Your task to perform on an android device: Search for "razer blade" on costco, select the first entry, add it to the cart, then select checkout. Image 0: 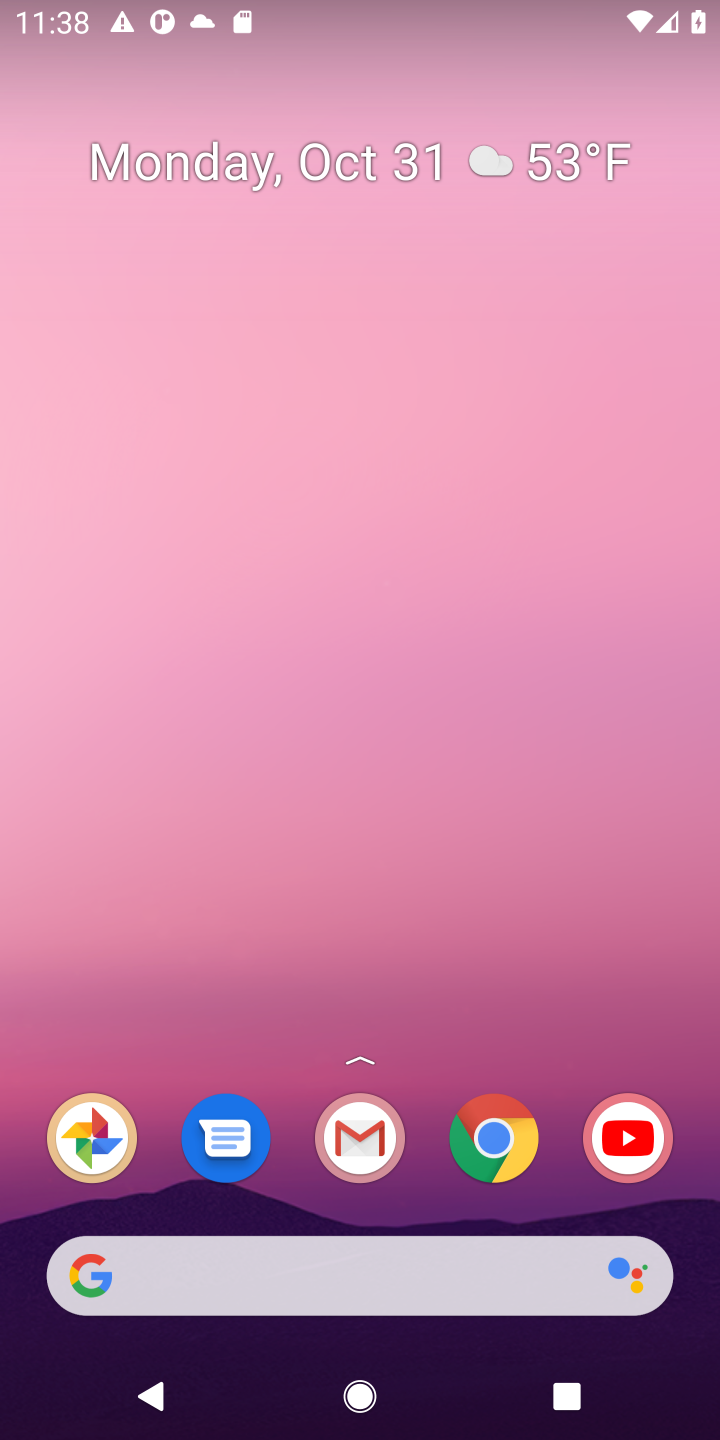
Step 0: press home button
Your task to perform on an android device: Search for "razer blade" on costco, select the first entry, add it to the cart, then select checkout. Image 1: 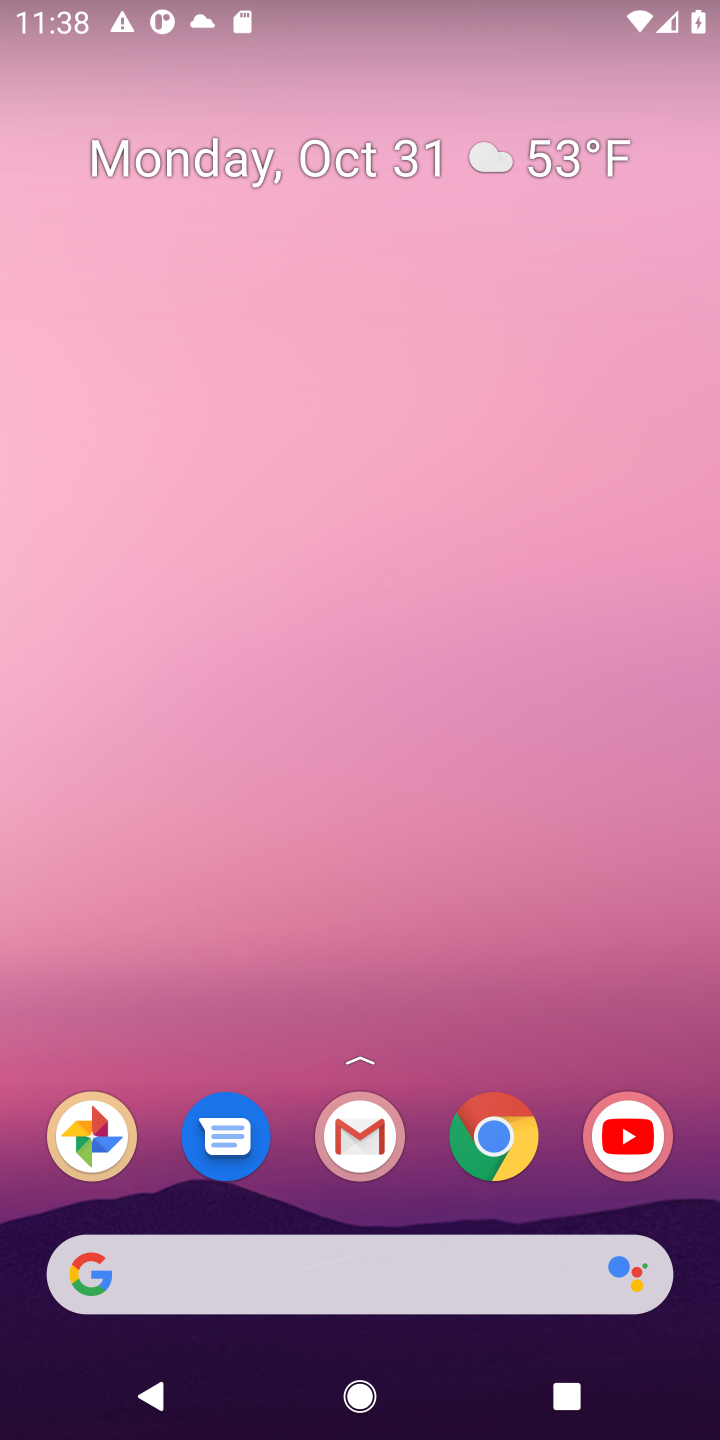
Step 1: click (137, 1271)
Your task to perform on an android device: Search for "razer blade" on costco, select the first entry, add it to the cart, then select checkout. Image 2: 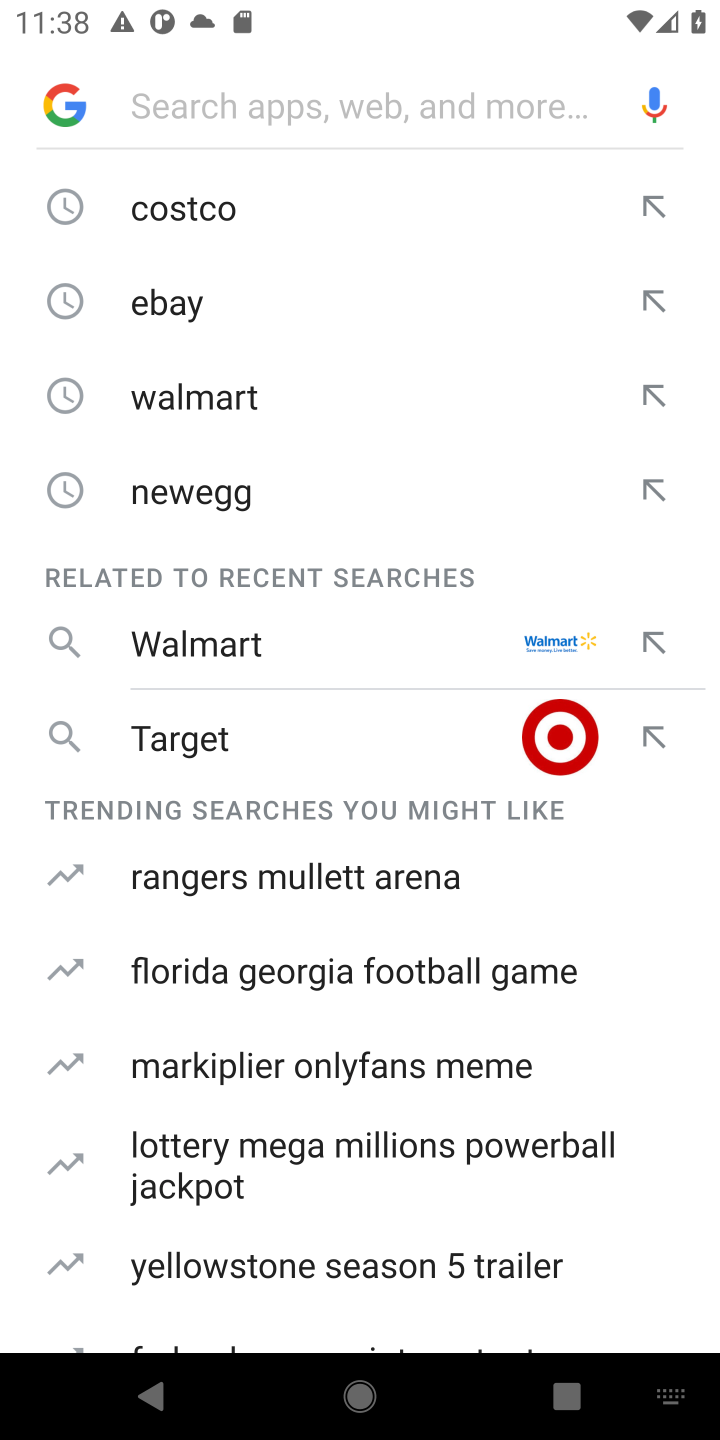
Step 2: type "costco,"
Your task to perform on an android device: Search for "razer blade" on costco, select the first entry, add it to the cart, then select checkout. Image 3: 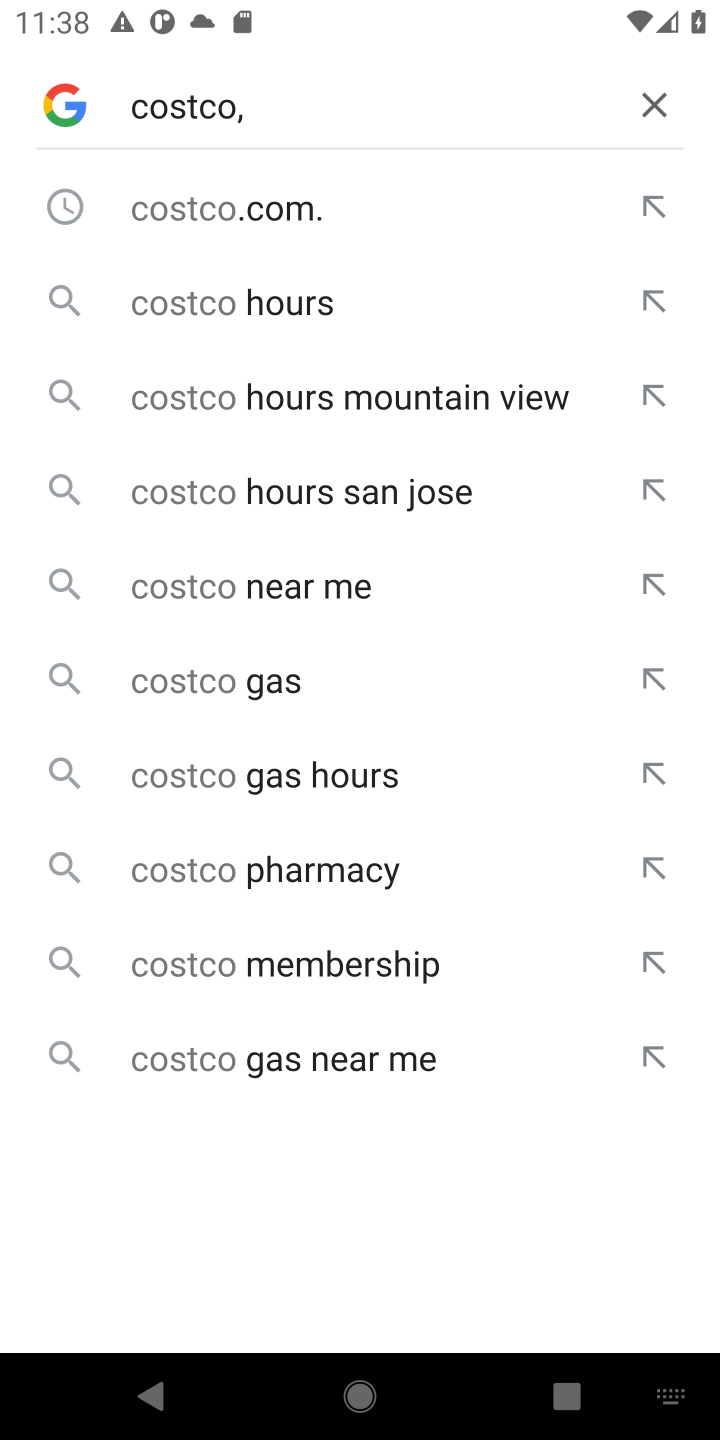
Step 3: press enter
Your task to perform on an android device: Search for "razer blade" on costco, select the first entry, add it to the cart, then select checkout. Image 4: 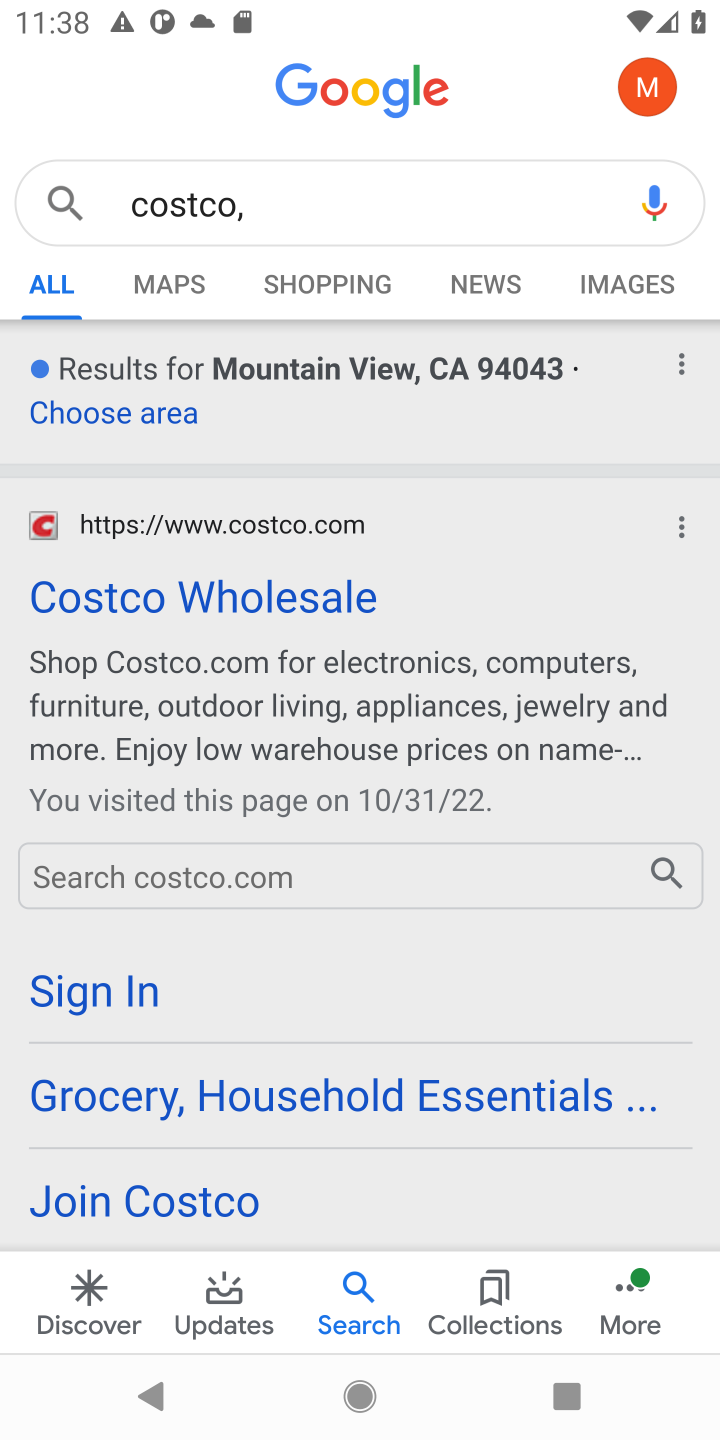
Step 4: click (248, 600)
Your task to perform on an android device: Search for "razer blade" on costco, select the first entry, add it to the cart, then select checkout. Image 5: 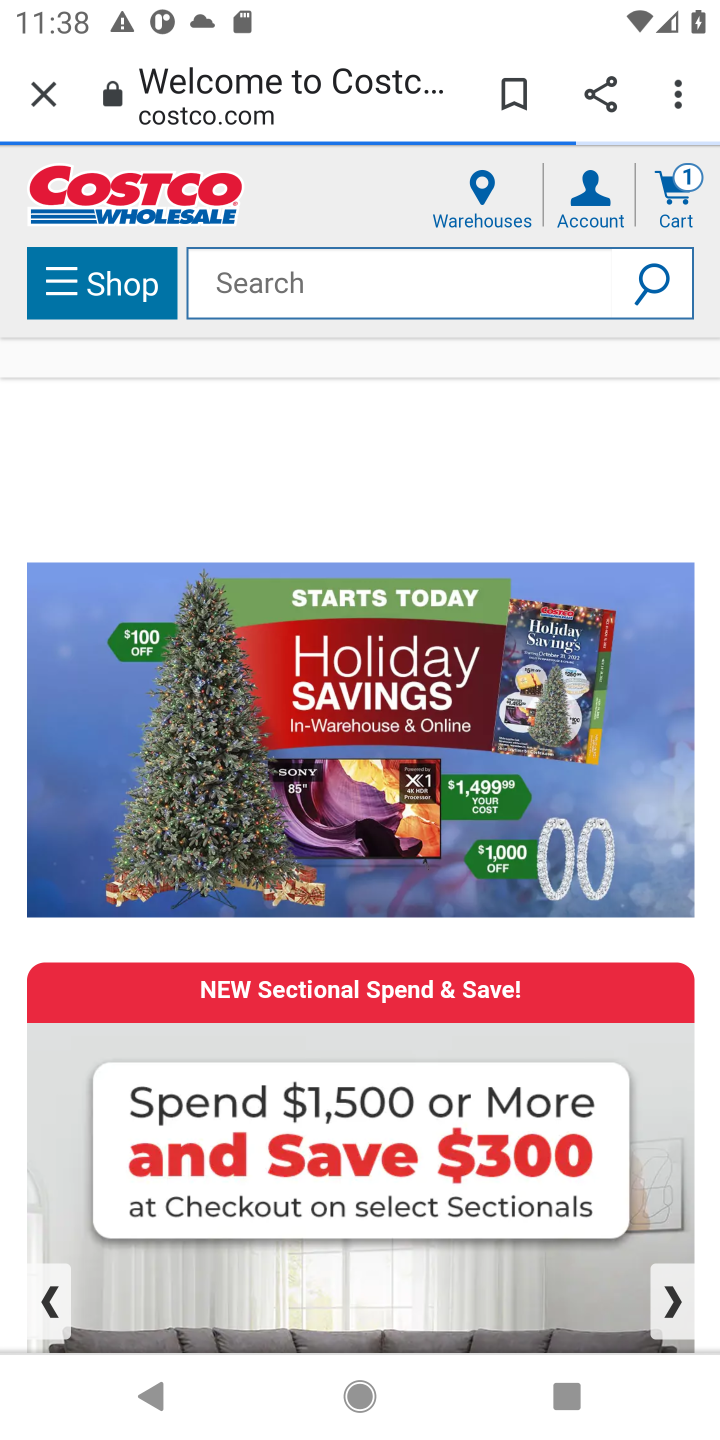
Step 5: click (287, 264)
Your task to perform on an android device: Search for "razer blade" on costco, select the first entry, add it to the cart, then select checkout. Image 6: 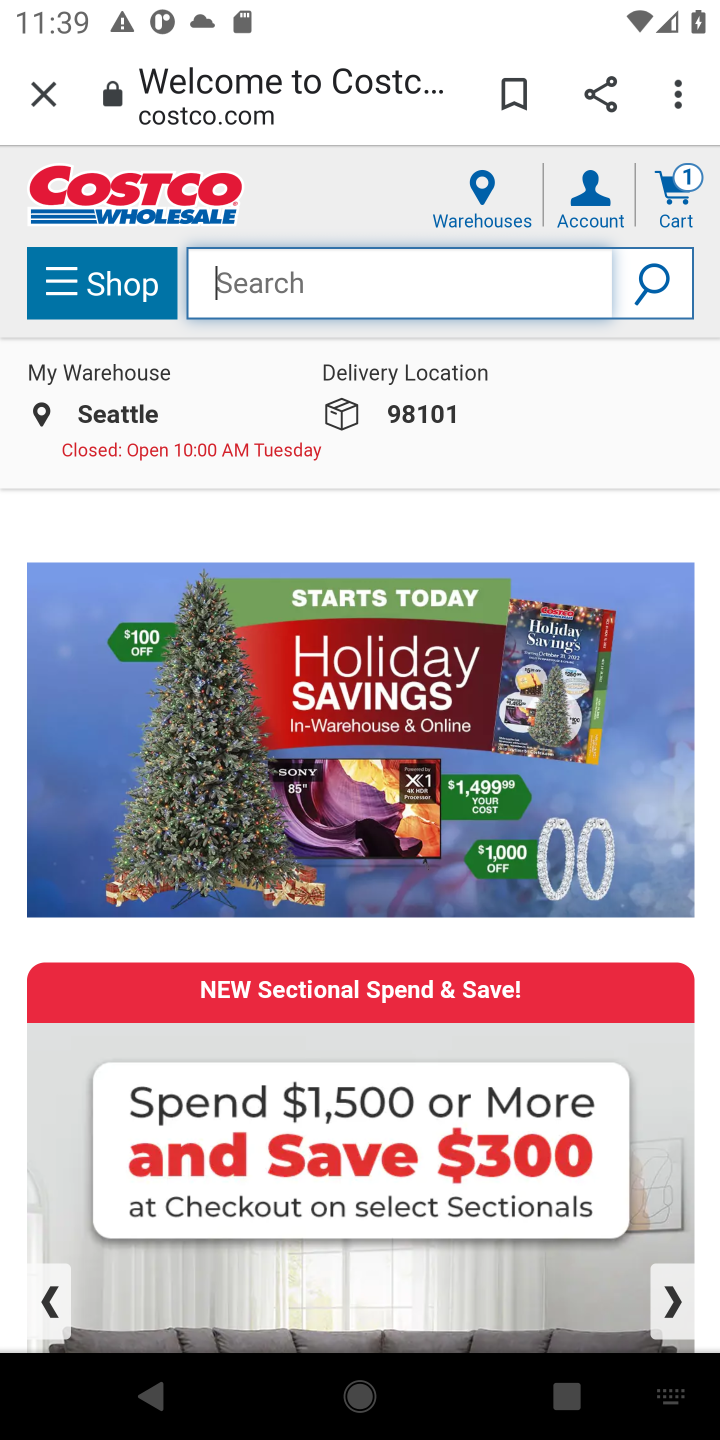
Step 6: press enter
Your task to perform on an android device: Search for "razer blade" on costco, select the first entry, add it to the cart, then select checkout. Image 7: 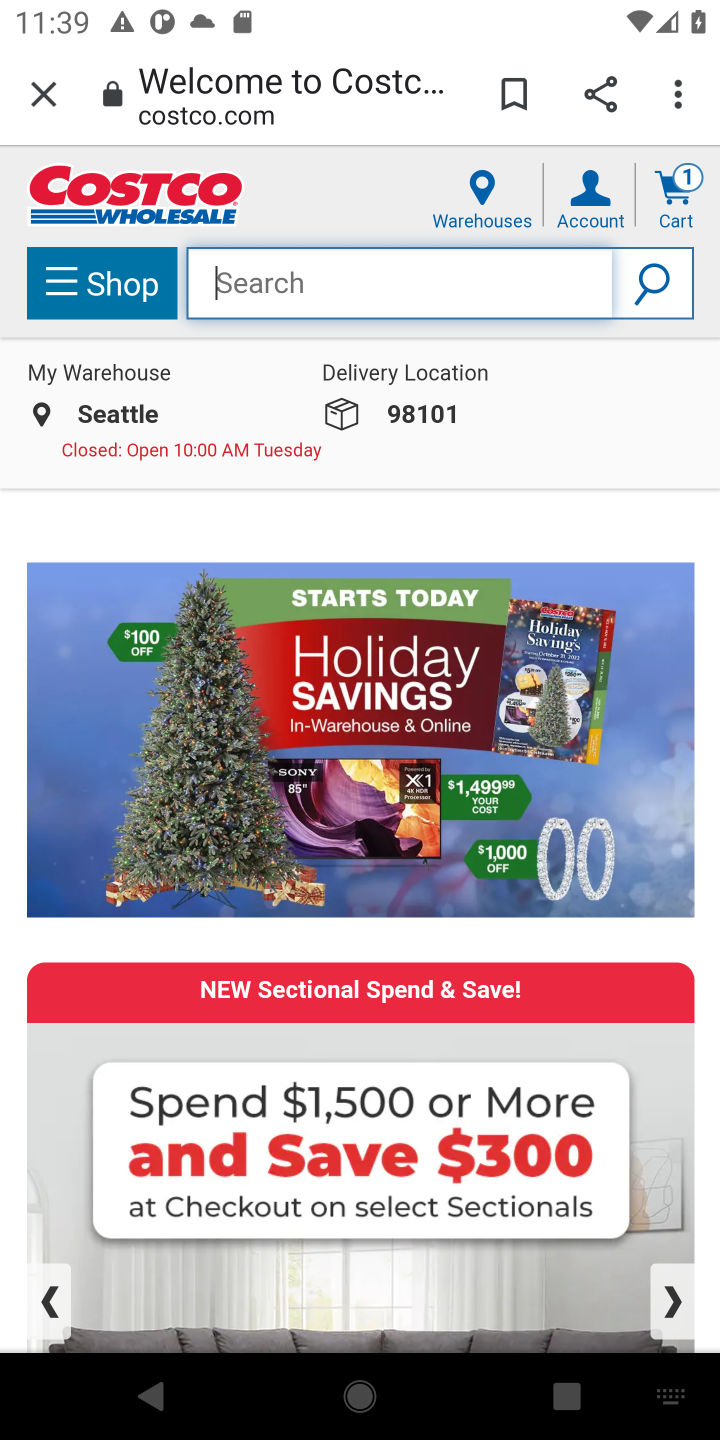
Step 7: type "razer blade"
Your task to perform on an android device: Search for "razer blade" on costco, select the first entry, add it to the cart, then select checkout. Image 8: 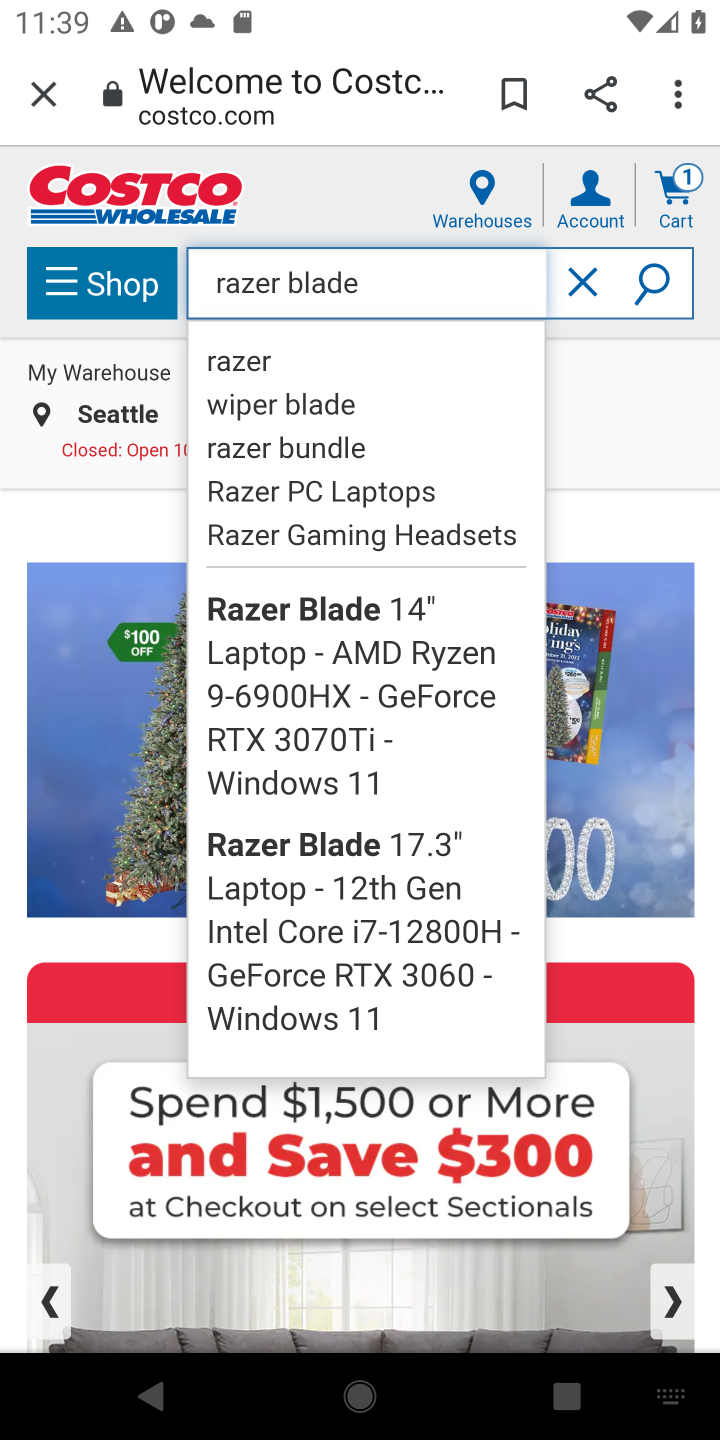
Step 8: click (660, 268)
Your task to perform on an android device: Search for "razer blade" on costco, select the first entry, add it to the cart, then select checkout. Image 9: 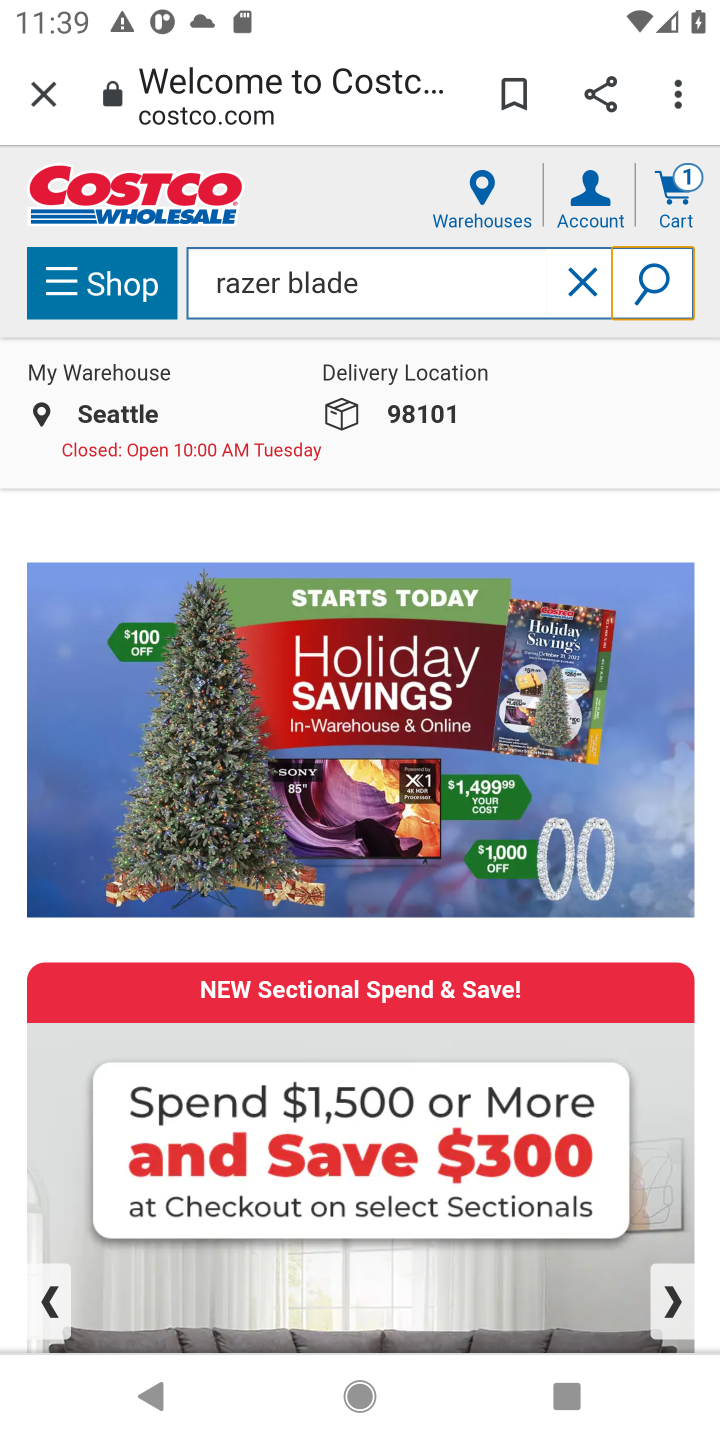
Step 9: click (654, 265)
Your task to perform on an android device: Search for "razer blade" on costco, select the first entry, add it to the cart, then select checkout. Image 10: 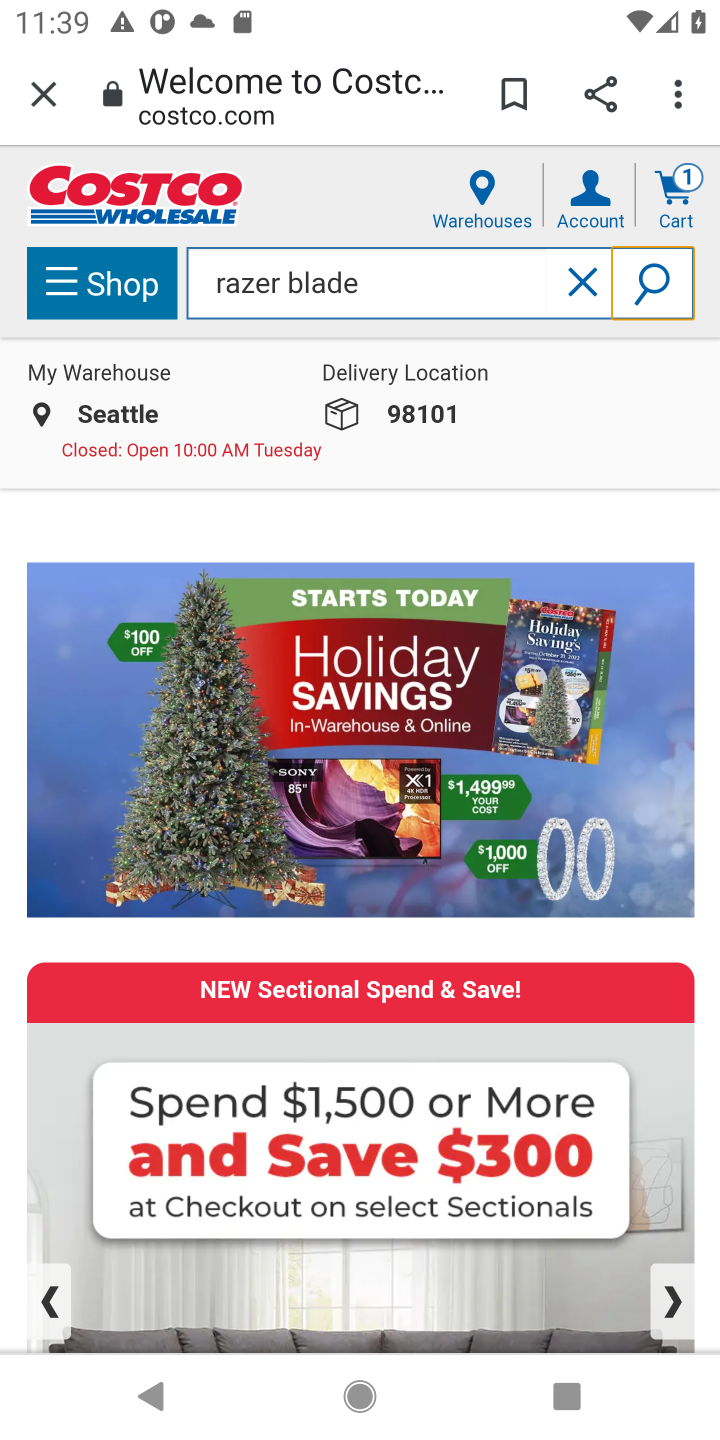
Step 10: click (651, 275)
Your task to perform on an android device: Search for "razer blade" on costco, select the first entry, add it to the cart, then select checkout. Image 11: 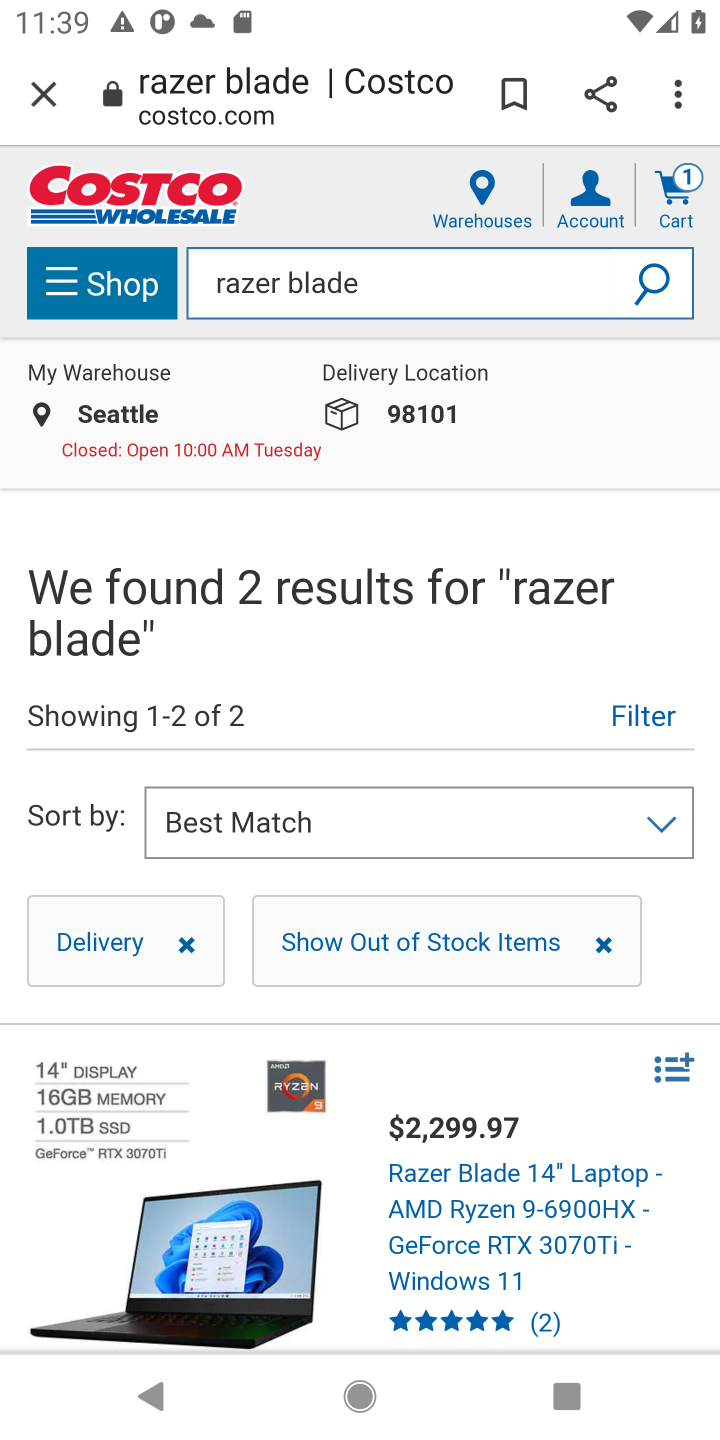
Step 11: drag from (447, 1103) to (447, 750)
Your task to perform on an android device: Search for "razer blade" on costco, select the first entry, add it to the cart, then select checkout. Image 12: 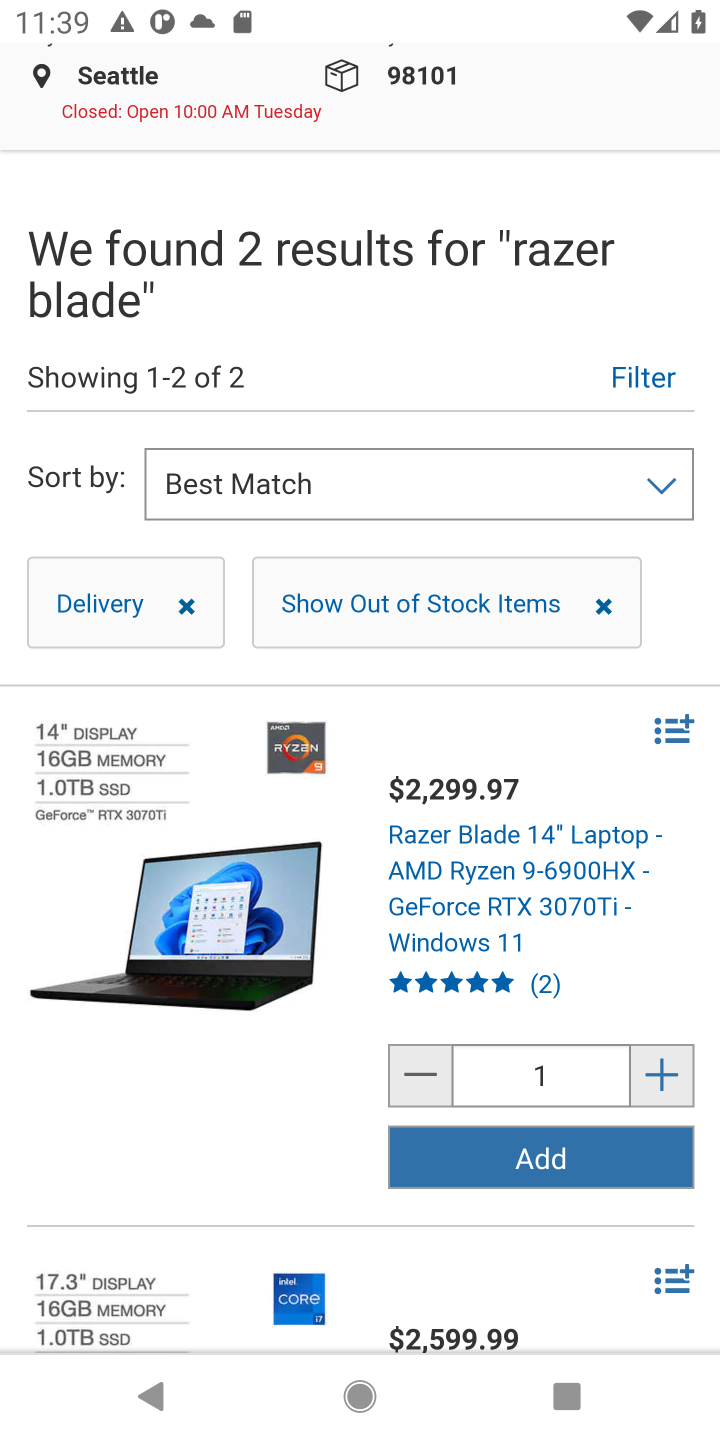
Step 12: click (550, 1165)
Your task to perform on an android device: Search for "razer blade" on costco, select the first entry, add it to the cart, then select checkout. Image 13: 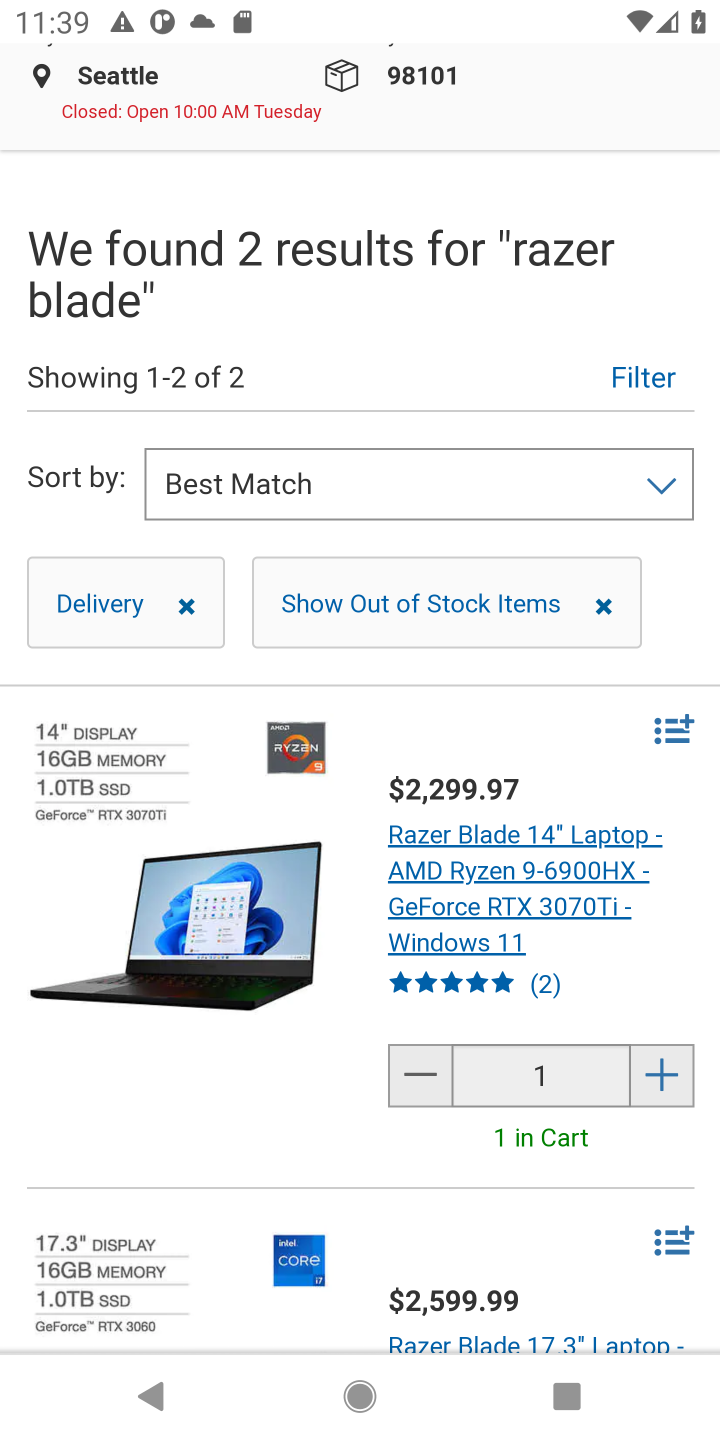
Step 13: drag from (485, 353) to (470, 1036)
Your task to perform on an android device: Search for "razer blade" on costco, select the first entry, add it to the cart, then select checkout. Image 14: 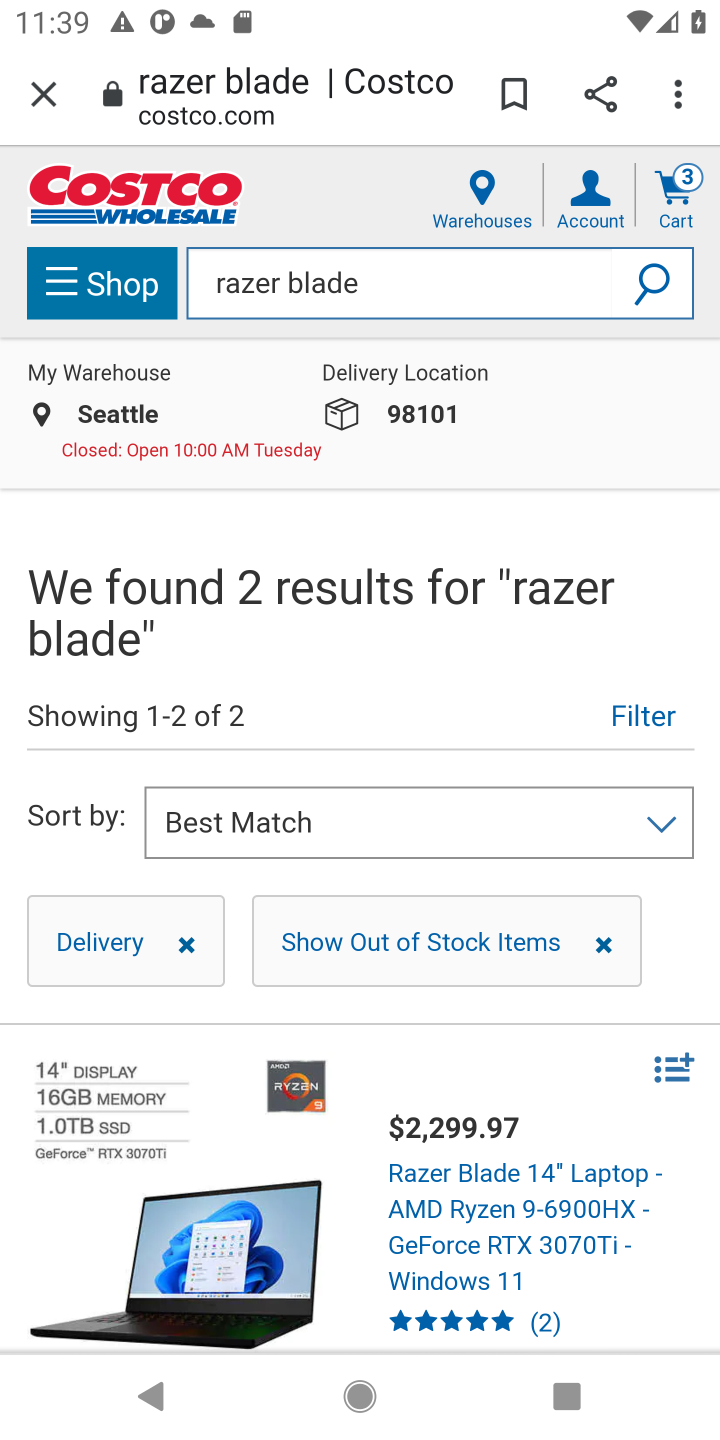
Step 14: click (675, 182)
Your task to perform on an android device: Search for "razer blade" on costco, select the first entry, add it to the cart, then select checkout. Image 15: 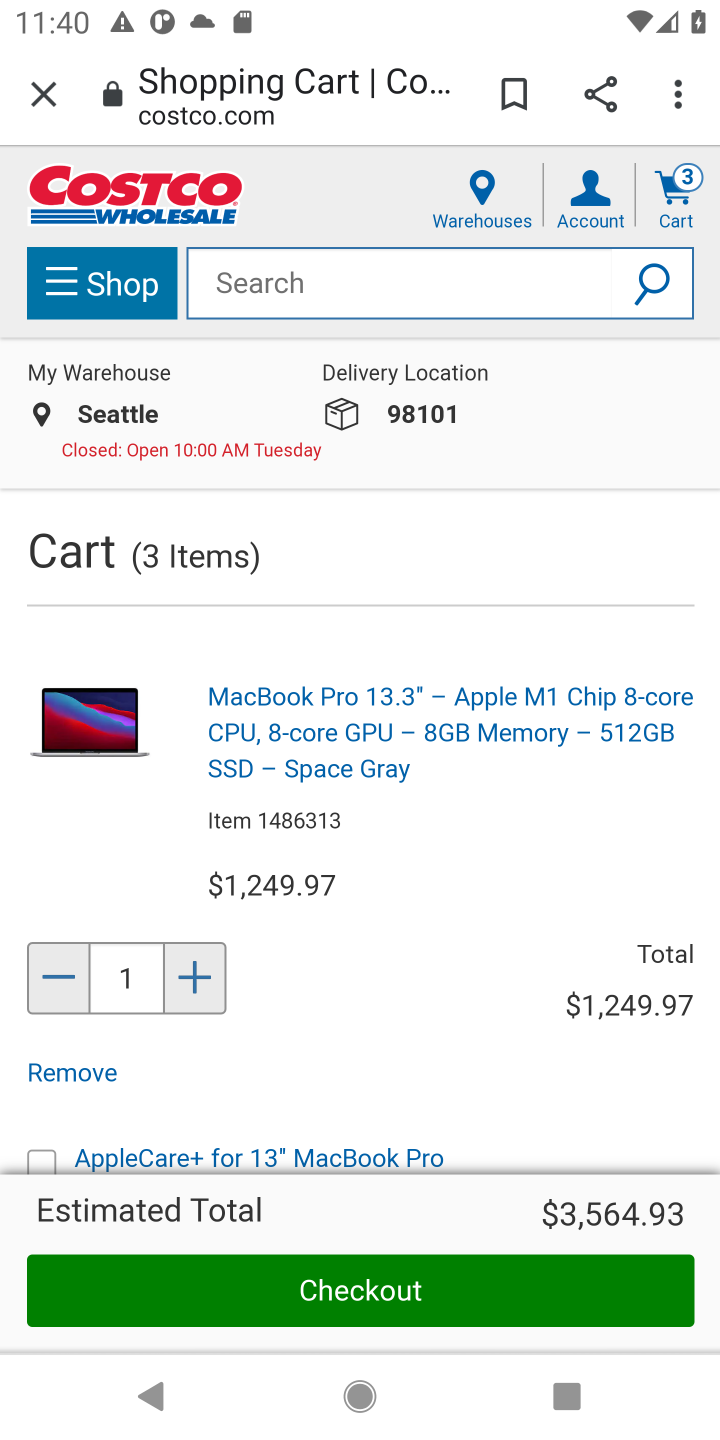
Step 15: click (364, 1291)
Your task to perform on an android device: Search for "razer blade" on costco, select the first entry, add it to the cart, then select checkout. Image 16: 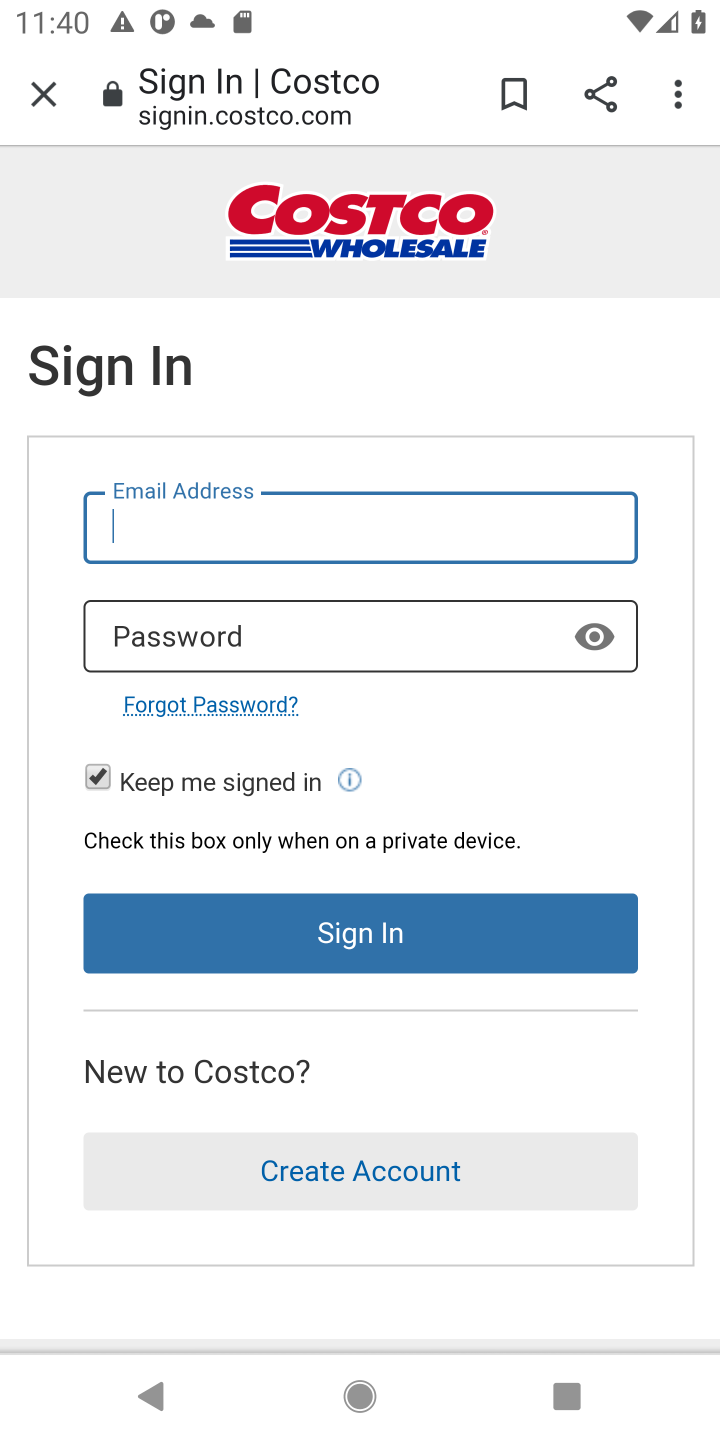
Step 16: task complete